Your task to perform on an android device: open app "Nova Launcher" (install if not already installed) and enter user name: "haggard@gmail.com" and password: "sadder" Image 0: 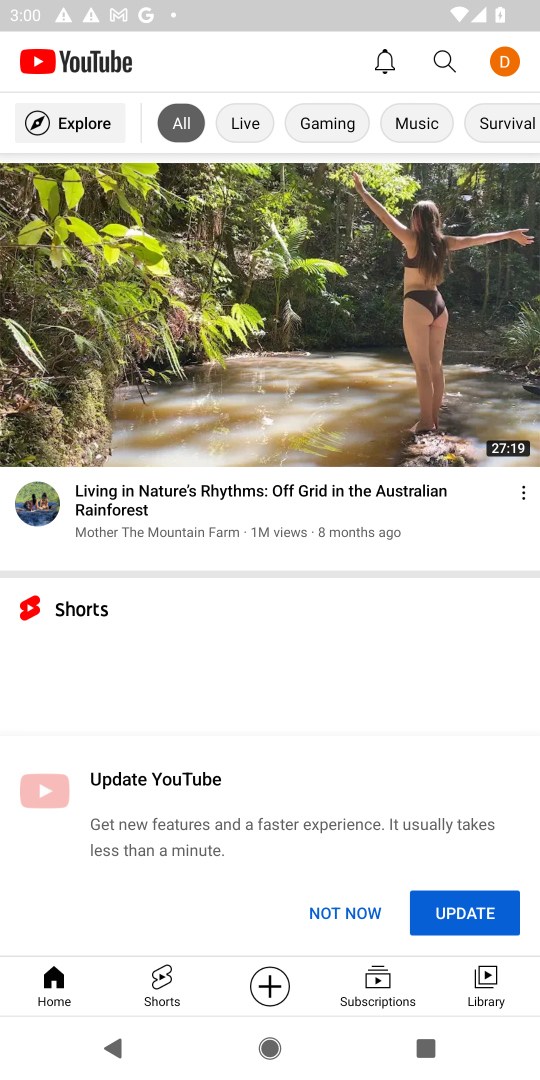
Step 0: press home button
Your task to perform on an android device: open app "Nova Launcher" (install if not already installed) and enter user name: "haggard@gmail.com" and password: "sadder" Image 1: 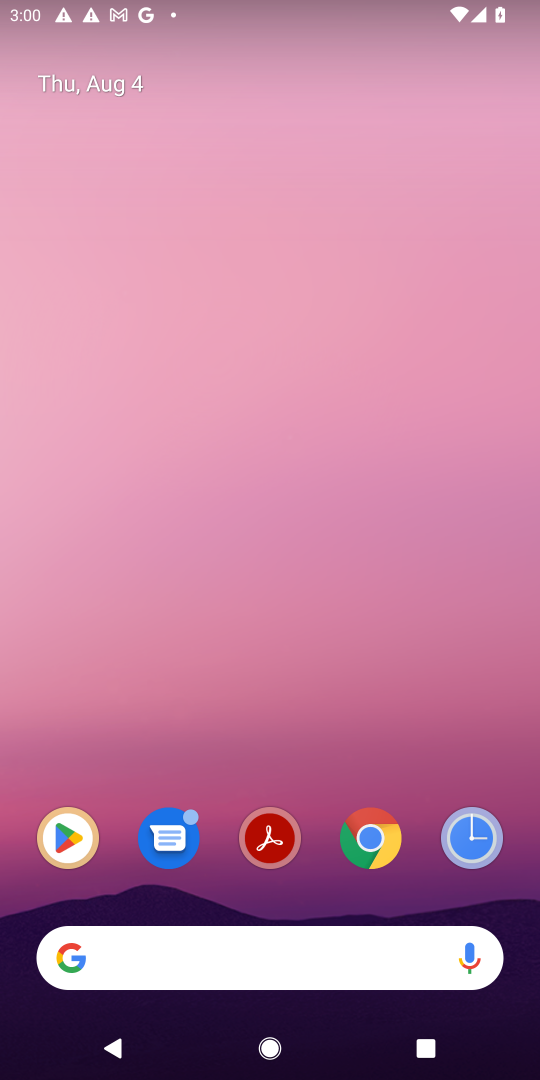
Step 1: click (78, 843)
Your task to perform on an android device: open app "Nova Launcher" (install if not already installed) and enter user name: "haggard@gmail.com" and password: "sadder" Image 2: 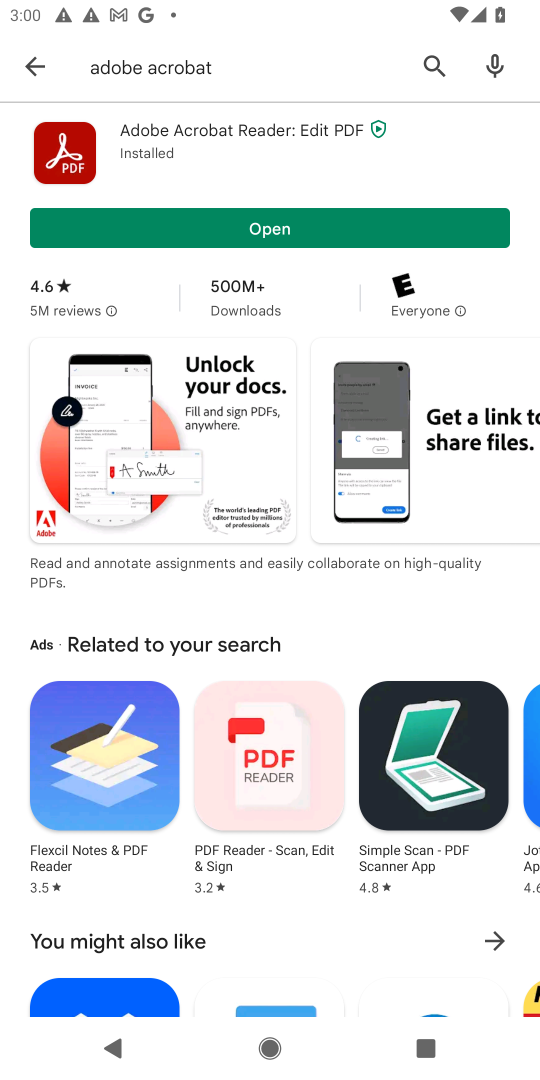
Step 2: click (422, 71)
Your task to perform on an android device: open app "Nova Launcher" (install if not already installed) and enter user name: "haggard@gmail.com" and password: "sadder" Image 3: 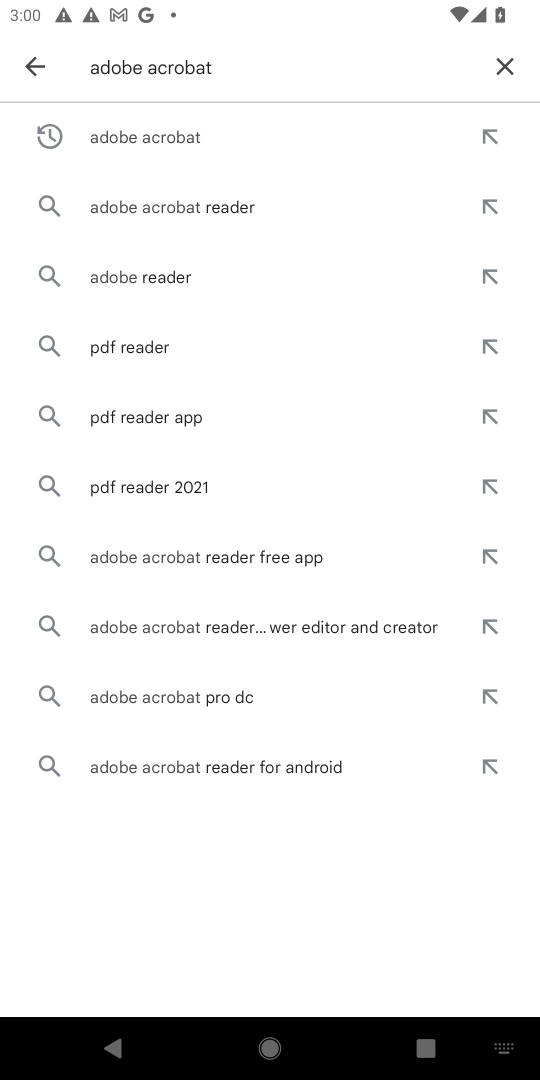
Step 3: click (508, 72)
Your task to perform on an android device: open app "Nova Launcher" (install if not already installed) and enter user name: "haggard@gmail.com" and password: "sadder" Image 4: 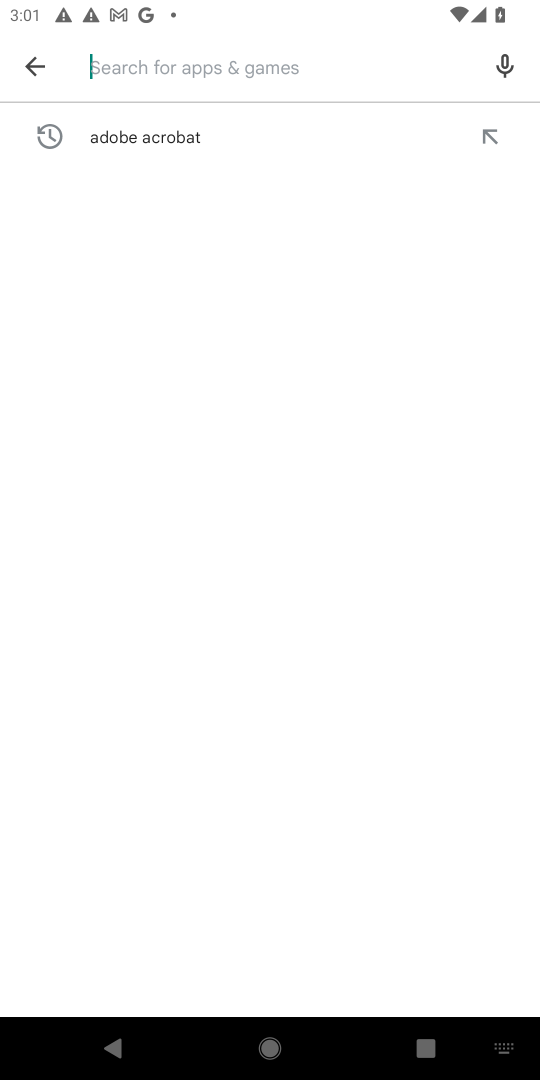
Step 4: type "nova launcher"
Your task to perform on an android device: open app "Nova Launcher" (install if not already installed) and enter user name: "haggard@gmail.com" and password: "sadder" Image 5: 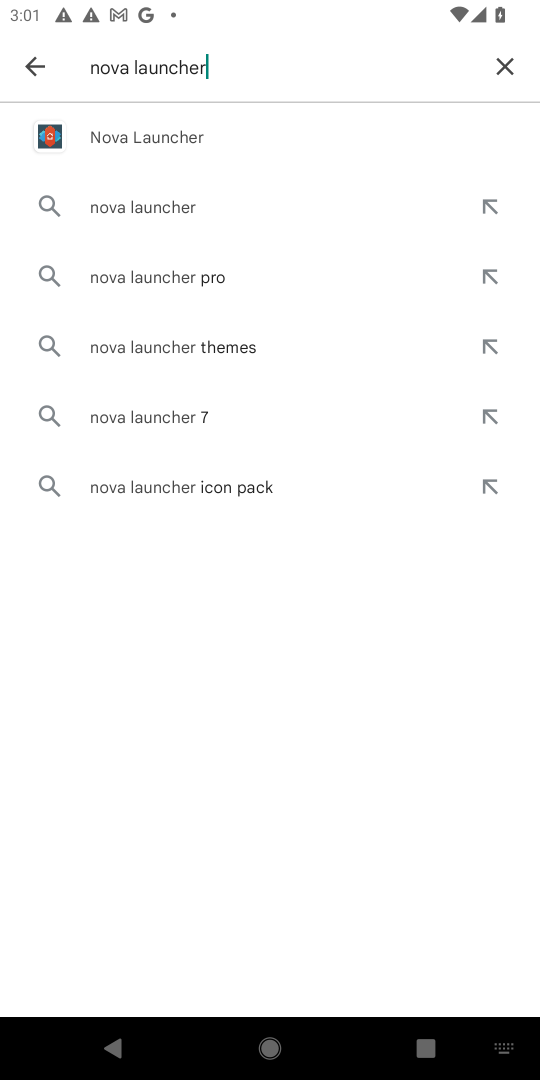
Step 5: click (120, 148)
Your task to perform on an android device: open app "Nova Launcher" (install if not already installed) and enter user name: "haggard@gmail.com" and password: "sadder" Image 6: 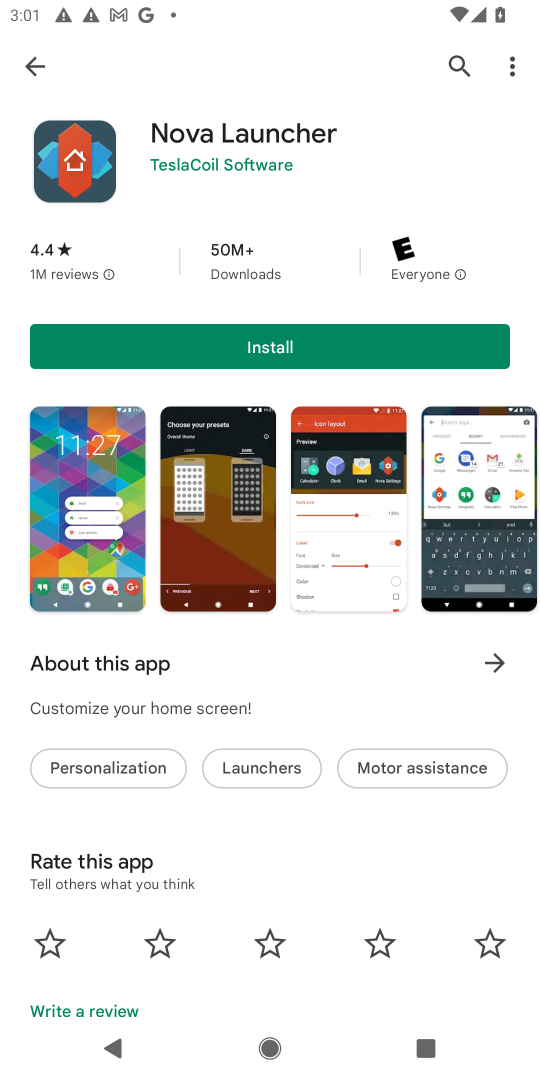
Step 6: click (244, 345)
Your task to perform on an android device: open app "Nova Launcher" (install if not already installed) and enter user name: "haggard@gmail.com" and password: "sadder" Image 7: 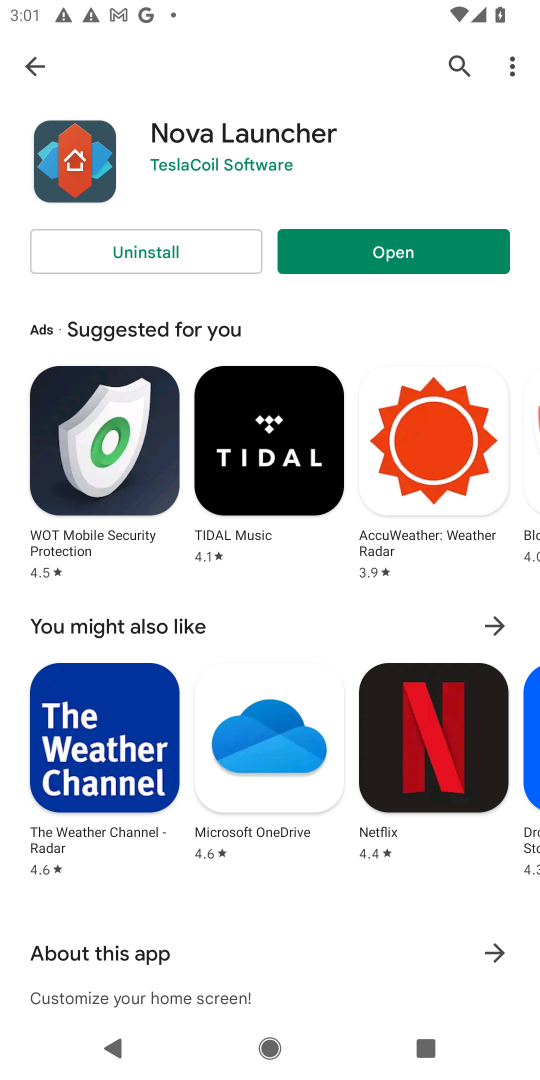
Step 7: click (378, 266)
Your task to perform on an android device: open app "Nova Launcher" (install if not already installed) and enter user name: "haggard@gmail.com" and password: "sadder" Image 8: 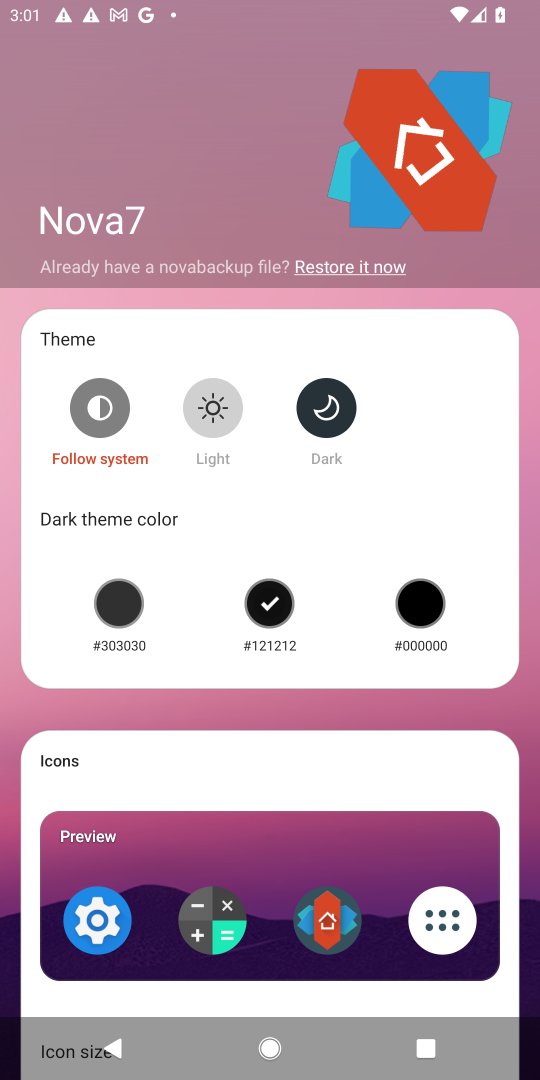
Step 8: task complete